Your task to perform on an android device: turn on the 12-hour format for clock Image 0: 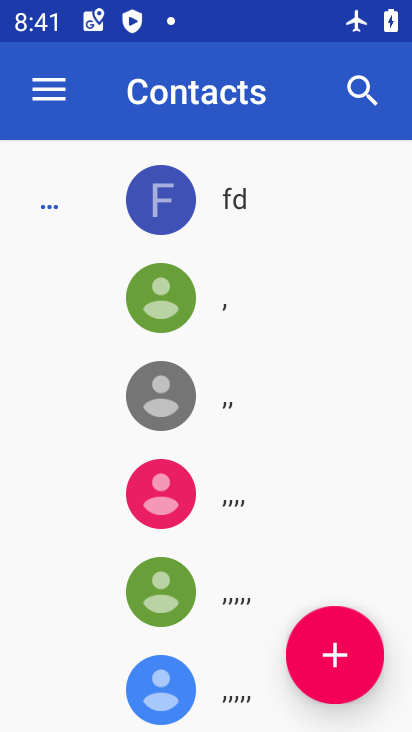
Step 0: press home button
Your task to perform on an android device: turn on the 12-hour format for clock Image 1: 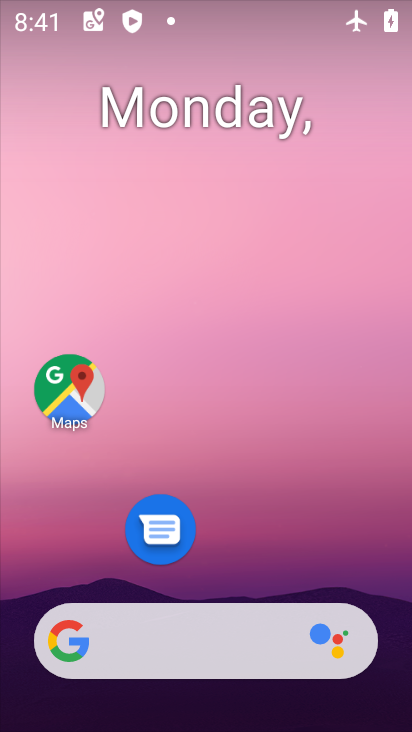
Step 1: drag from (249, 571) to (250, 127)
Your task to perform on an android device: turn on the 12-hour format for clock Image 2: 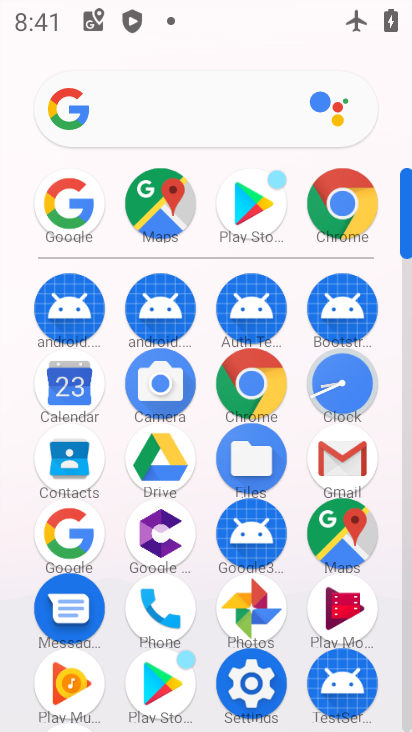
Step 2: drag from (121, 544) to (139, 275)
Your task to perform on an android device: turn on the 12-hour format for clock Image 3: 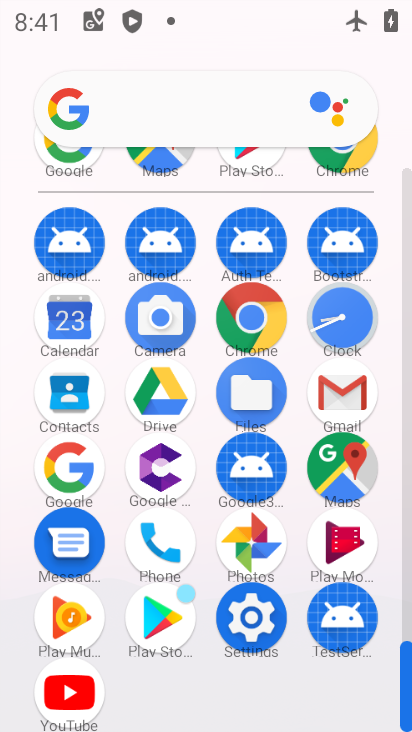
Step 3: click (354, 293)
Your task to perform on an android device: turn on the 12-hour format for clock Image 4: 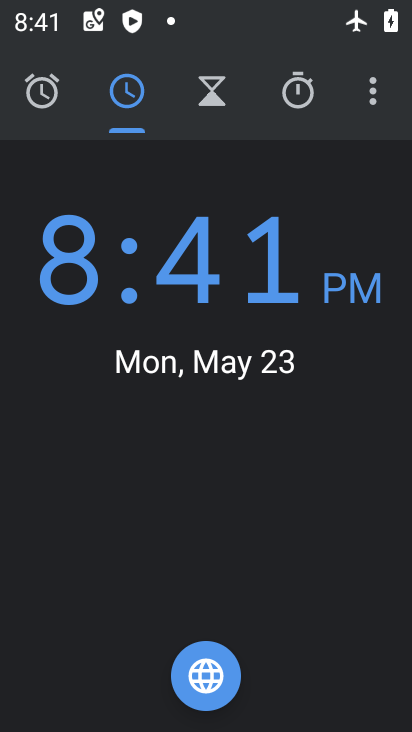
Step 4: click (375, 95)
Your task to perform on an android device: turn on the 12-hour format for clock Image 5: 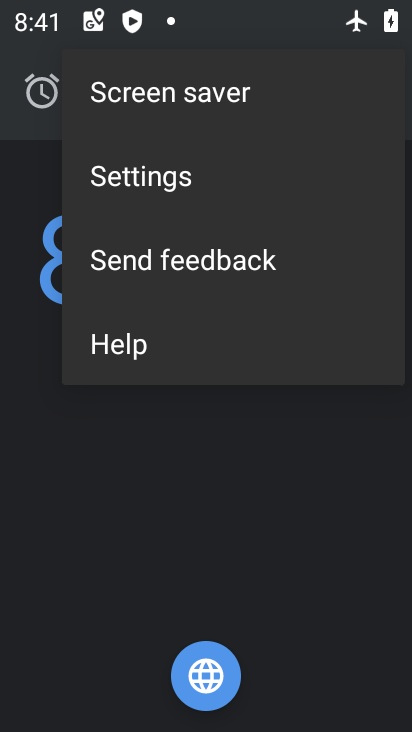
Step 5: click (151, 193)
Your task to perform on an android device: turn on the 12-hour format for clock Image 6: 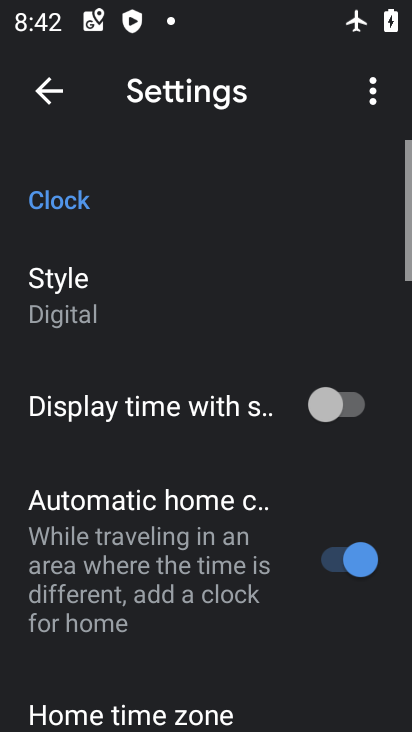
Step 6: drag from (209, 630) to (228, 205)
Your task to perform on an android device: turn on the 12-hour format for clock Image 7: 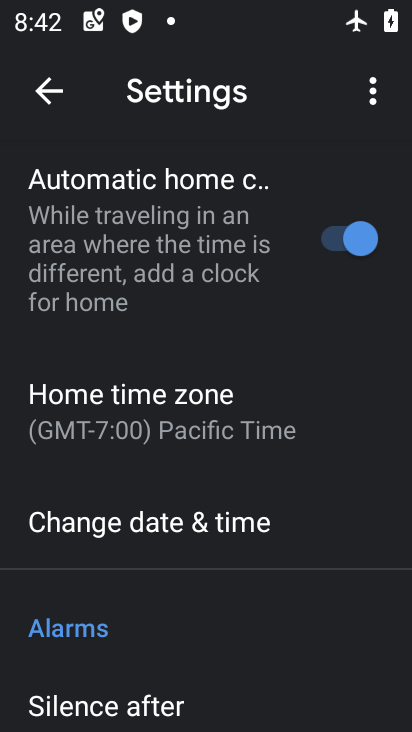
Step 7: click (220, 539)
Your task to perform on an android device: turn on the 12-hour format for clock Image 8: 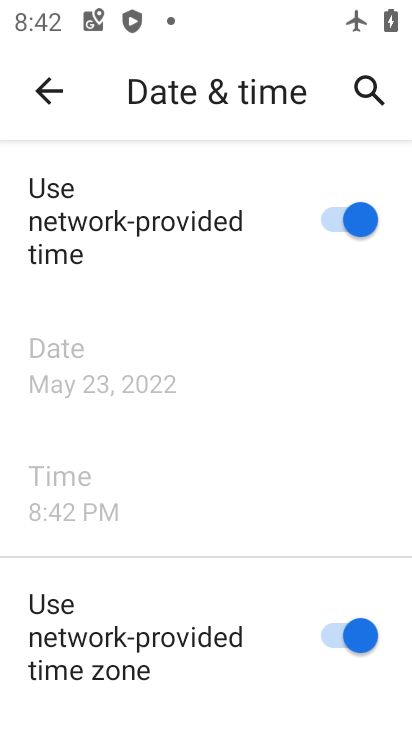
Step 8: drag from (233, 574) to (237, 184)
Your task to perform on an android device: turn on the 12-hour format for clock Image 9: 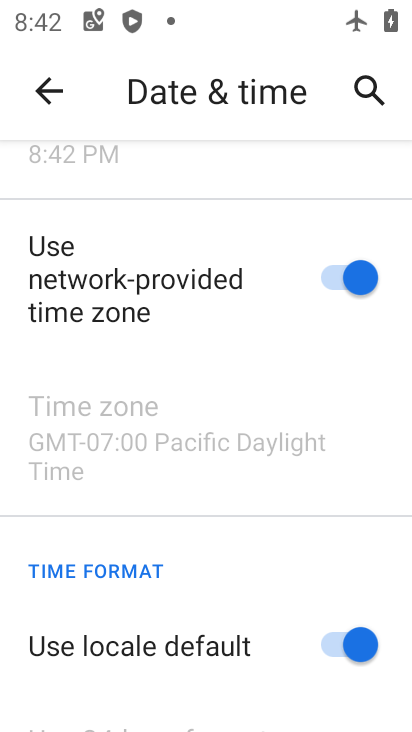
Step 9: drag from (257, 638) to (240, 274)
Your task to perform on an android device: turn on the 12-hour format for clock Image 10: 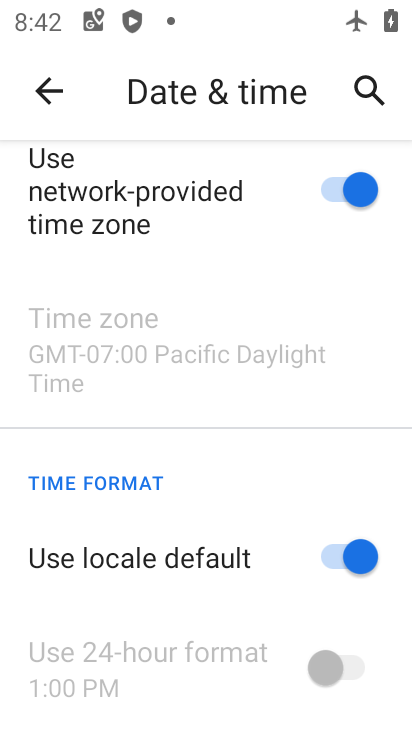
Step 10: click (332, 555)
Your task to perform on an android device: turn on the 12-hour format for clock Image 11: 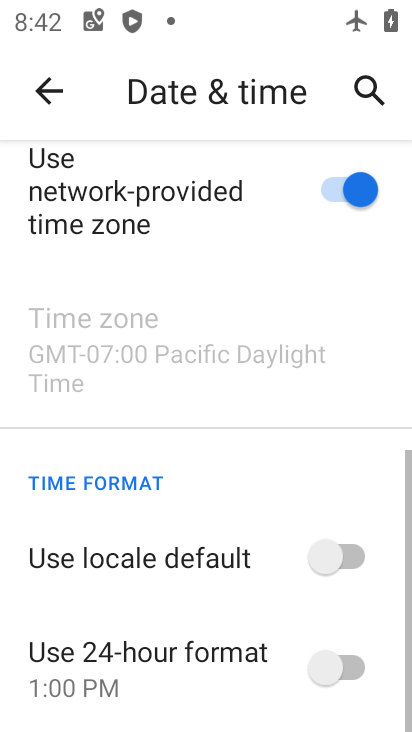
Step 11: click (345, 658)
Your task to perform on an android device: turn on the 12-hour format for clock Image 12: 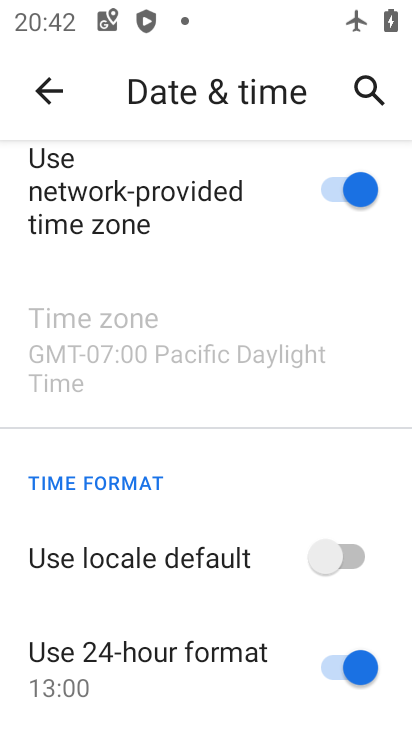
Step 12: task complete